Your task to perform on an android device: check the backup settings in the google photos Image 0: 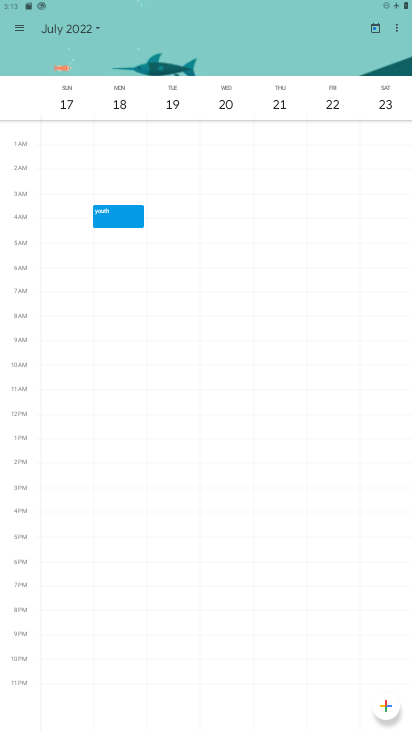
Step 0: press home button
Your task to perform on an android device: check the backup settings in the google photos Image 1: 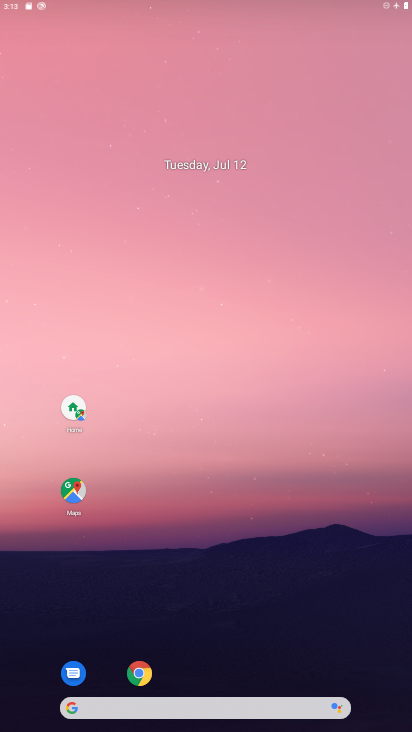
Step 1: drag from (225, 670) to (238, 332)
Your task to perform on an android device: check the backup settings in the google photos Image 2: 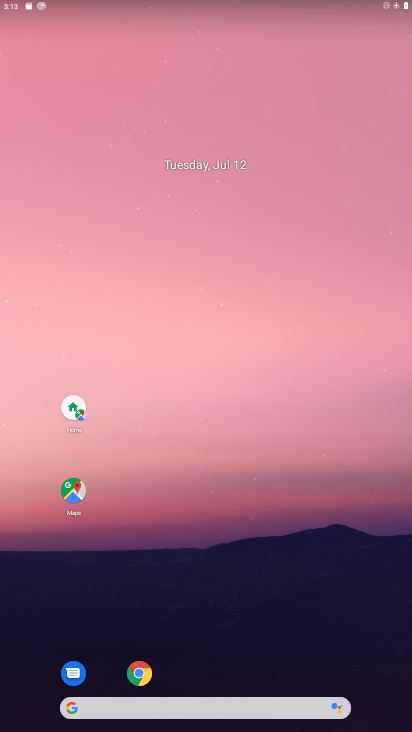
Step 2: drag from (254, 693) to (232, 271)
Your task to perform on an android device: check the backup settings in the google photos Image 3: 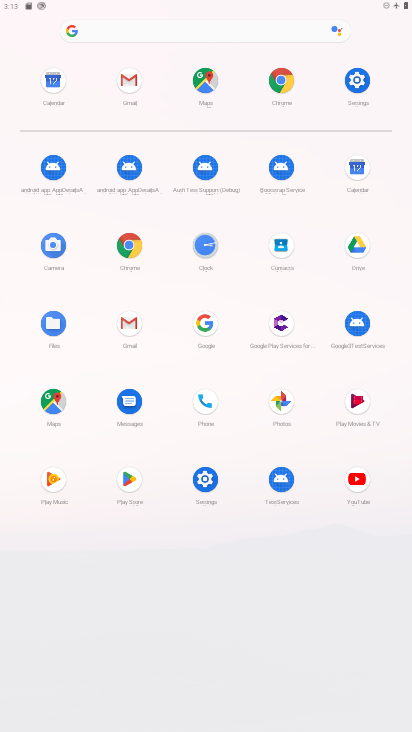
Step 3: click (278, 406)
Your task to perform on an android device: check the backup settings in the google photos Image 4: 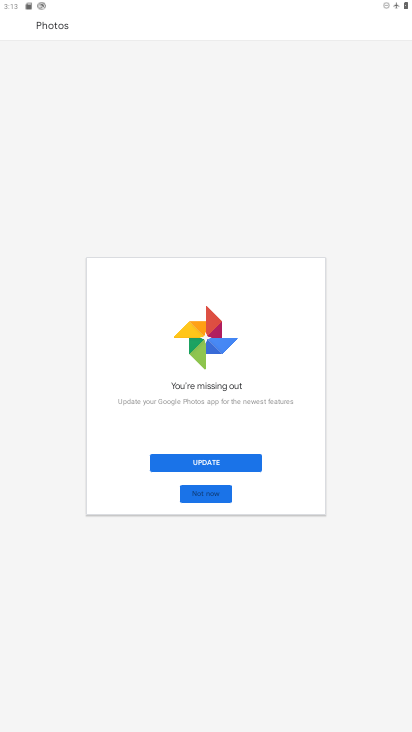
Step 4: click (211, 499)
Your task to perform on an android device: check the backup settings in the google photos Image 5: 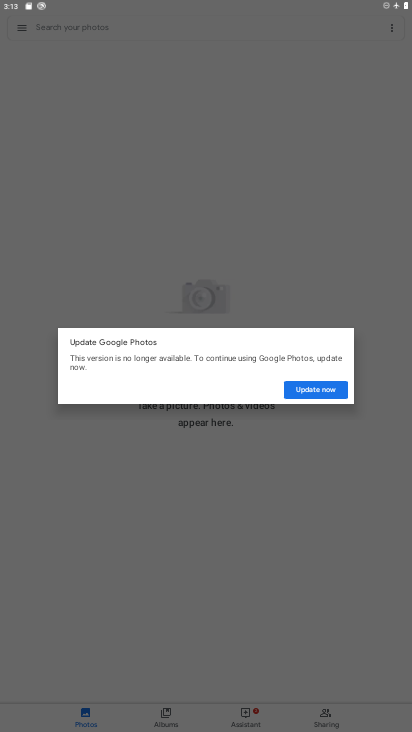
Step 5: click (271, 392)
Your task to perform on an android device: check the backup settings in the google photos Image 6: 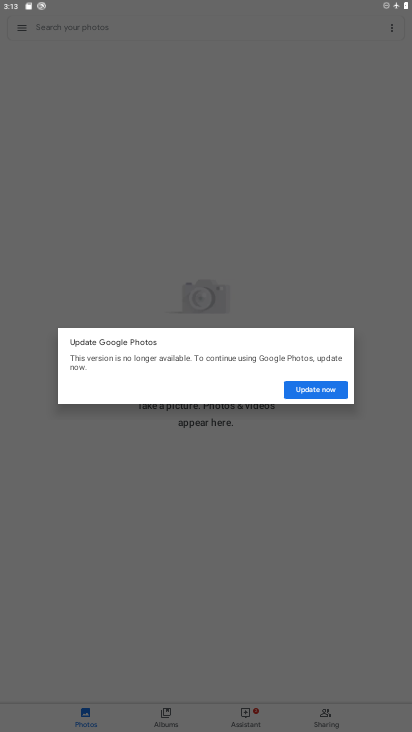
Step 6: click (275, 389)
Your task to perform on an android device: check the backup settings in the google photos Image 7: 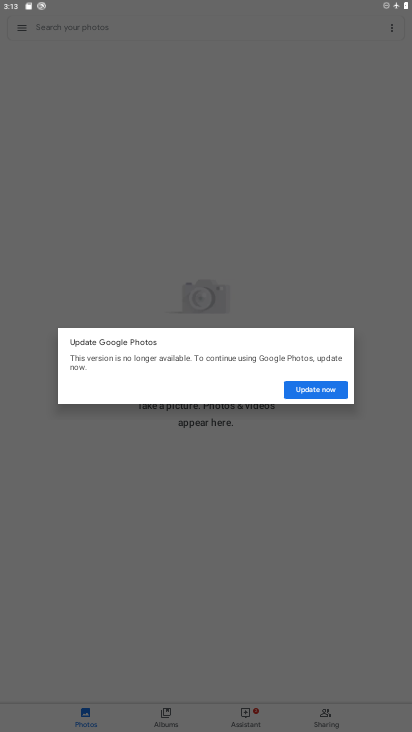
Step 7: click (279, 389)
Your task to perform on an android device: check the backup settings in the google photos Image 8: 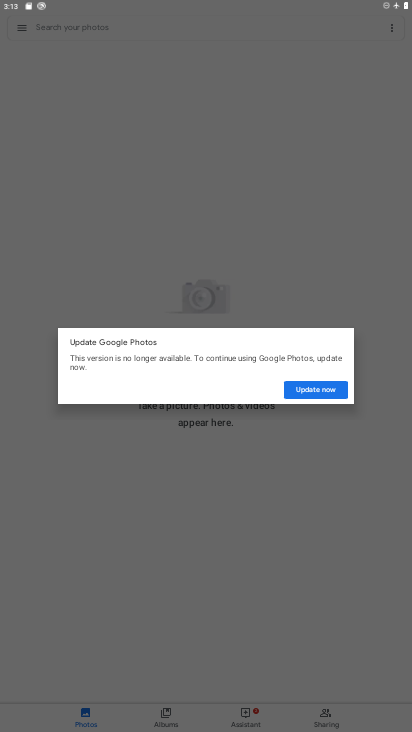
Step 8: click (294, 389)
Your task to perform on an android device: check the backup settings in the google photos Image 9: 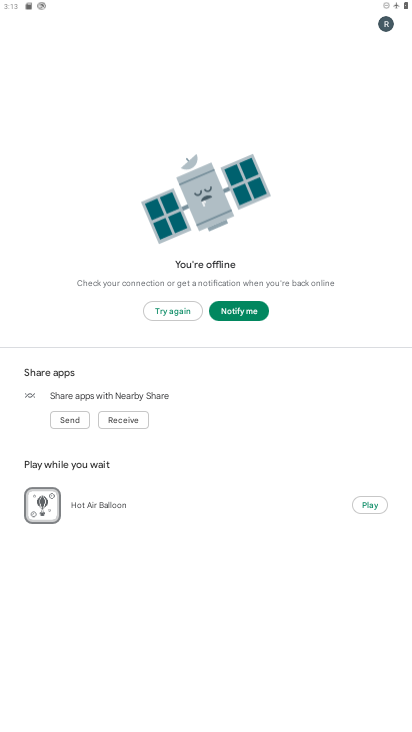
Step 9: press back button
Your task to perform on an android device: check the backup settings in the google photos Image 10: 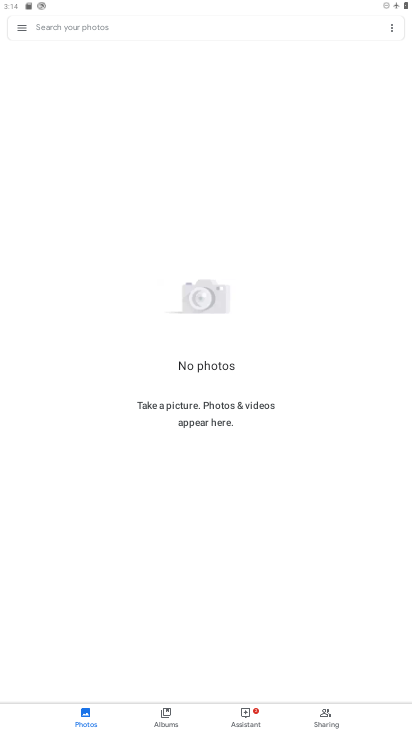
Step 10: click (14, 20)
Your task to perform on an android device: check the backup settings in the google photos Image 11: 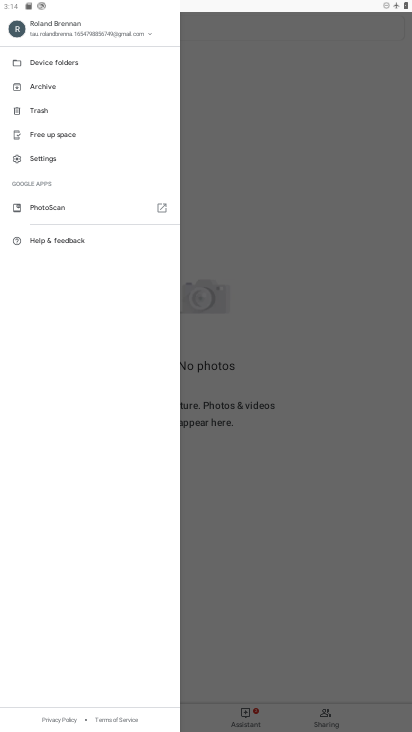
Step 11: click (41, 151)
Your task to perform on an android device: check the backup settings in the google photos Image 12: 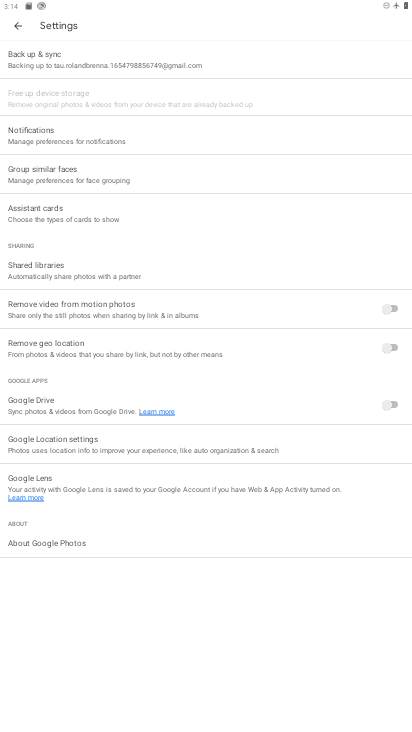
Step 12: click (41, 60)
Your task to perform on an android device: check the backup settings in the google photos Image 13: 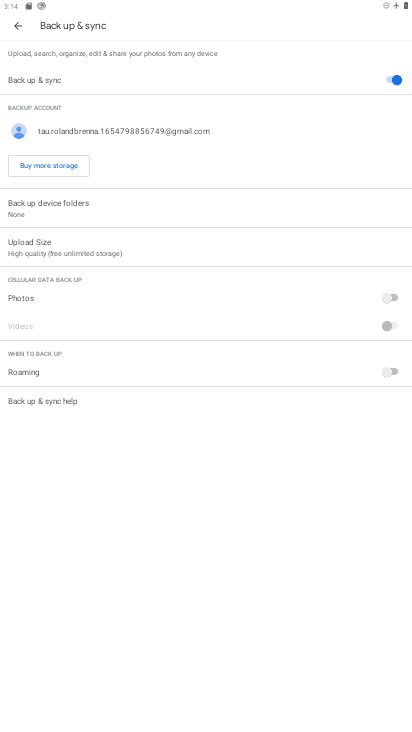
Step 13: task complete